Your task to perform on an android device: See recent photos Image 0: 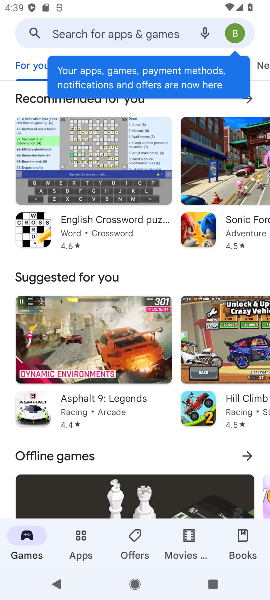
Step 0: press home button
Your task to perform on an android device: See recent photos Image 1: 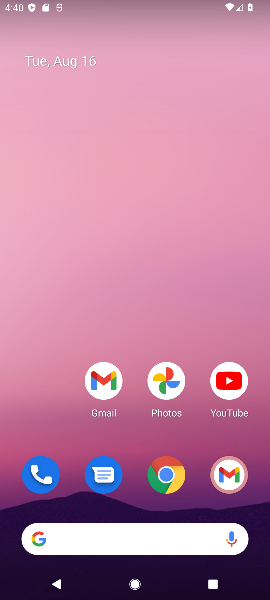
Step 1: drag from (196, 441) to (147, 23)
Your task to perform on an android device: See recent photos Image 2: 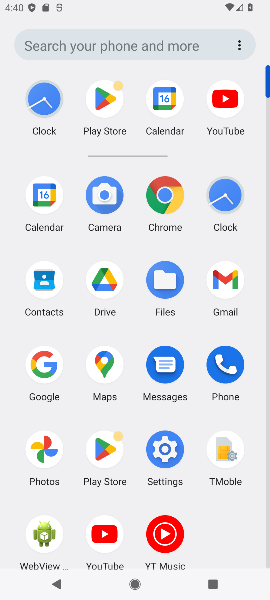
Step 2: click (36, 446)
Your task to perform on an android device: See recent photos Image 3: 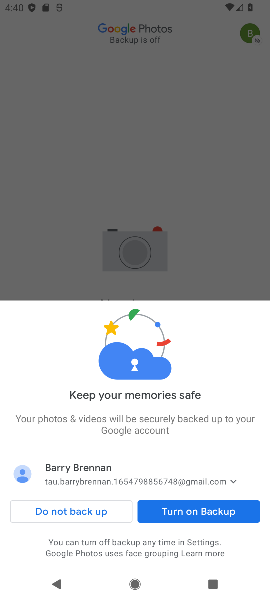
Step 3: task complete